Your task to perform on an android device: Open Android settings Image 0: 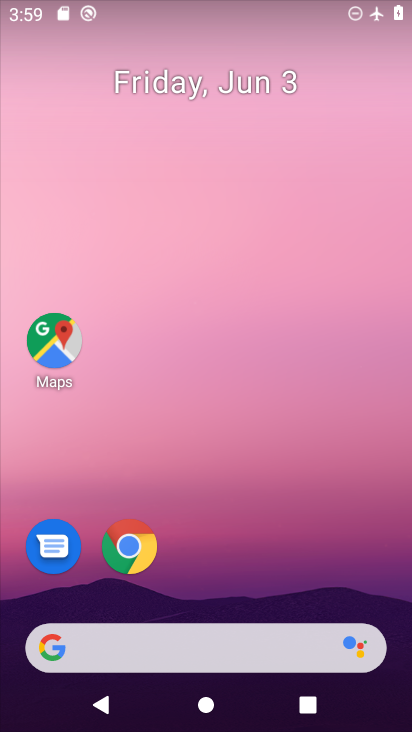
Step 0: drag from (252, 564) to (295, 25)
Your task to perform on an android device: Open Android settings Image 1: 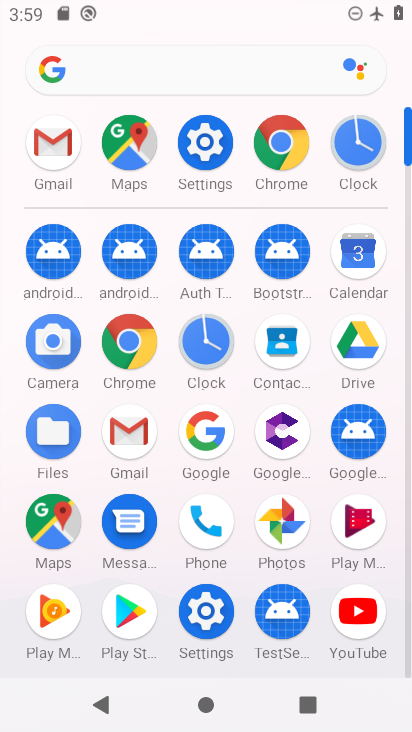
Step 1: click (209, 144)
Your task to perform on an android device: Open Android settings Image 2: 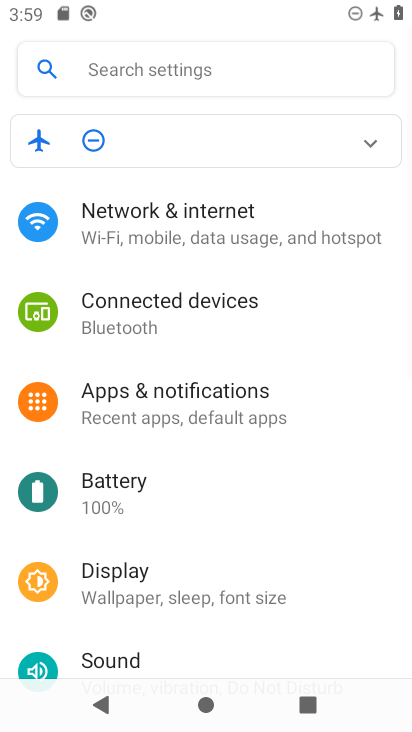
Step 2: drag from (222, 505) to (258, 6)
Your task to perform on an android device: Open Android settings Image 3: 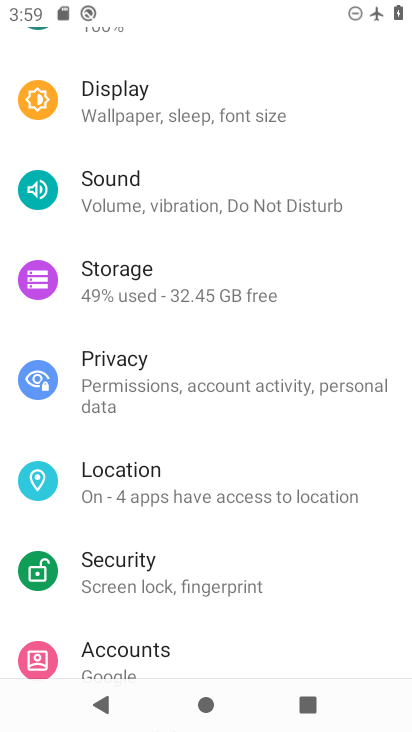
Step 3: drag from (197, 531) to (245, 3)
Your task to perform on an android device: Open Android settings Image 4: 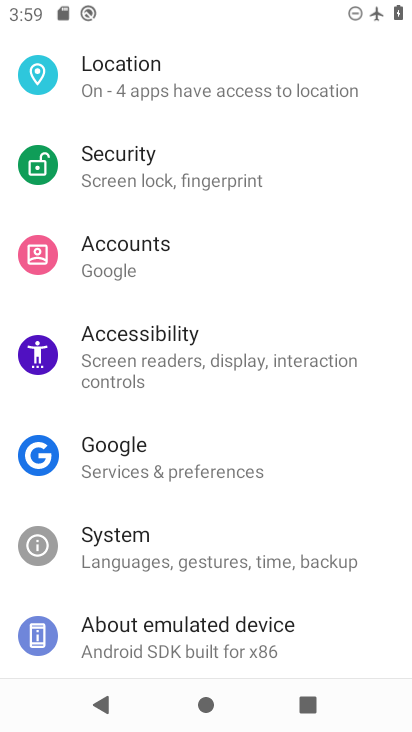
Step 4: click (184, 640)
Your task to perform on an android device: Open Android settings Image 5: 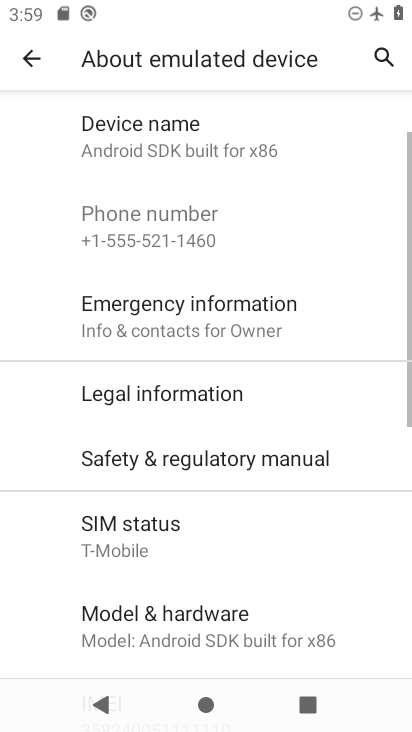
Step 5: task complete